Your task to perform on an android device: change timer sound Image 0: 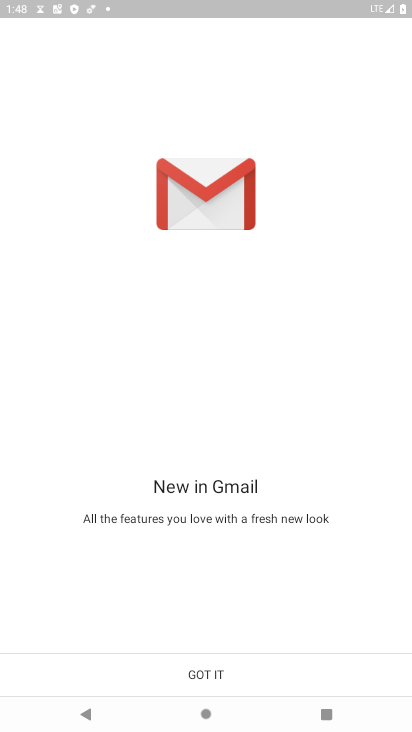
Step 0: press home button
Your task to perform on an android device: change timer sound Image 1: 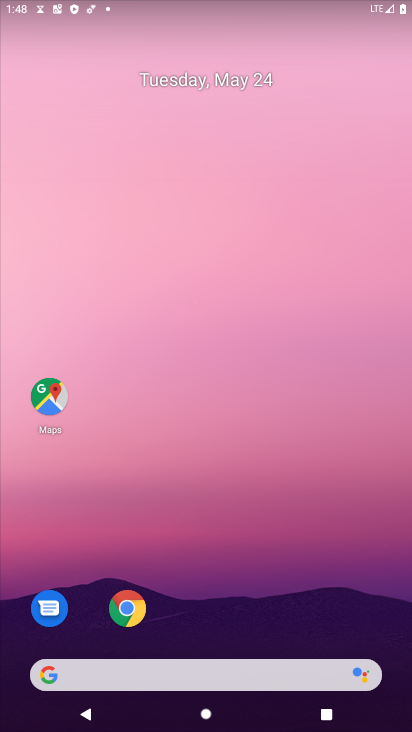
Step 1: drag from (212, 638) to (150, 219)
Your task to perform on an android device: change timer sound Image 2: 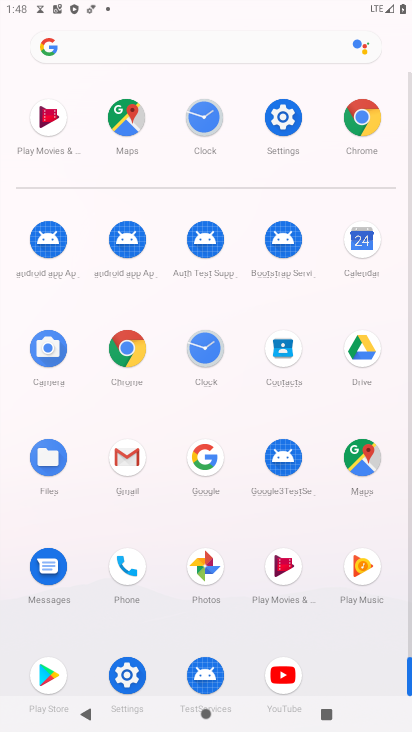
Step 2: click (216, 127)
Your task to perform on an android device: change timer sound Image 3: 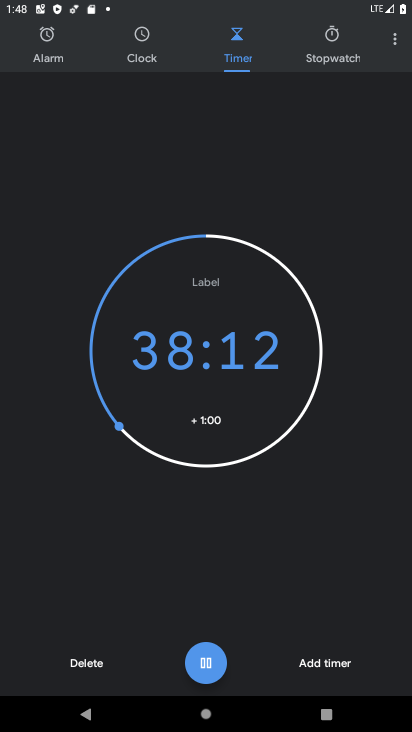
Step 3: click (399, 47)
Your task to perform on an android device: change timer sound Image 4: 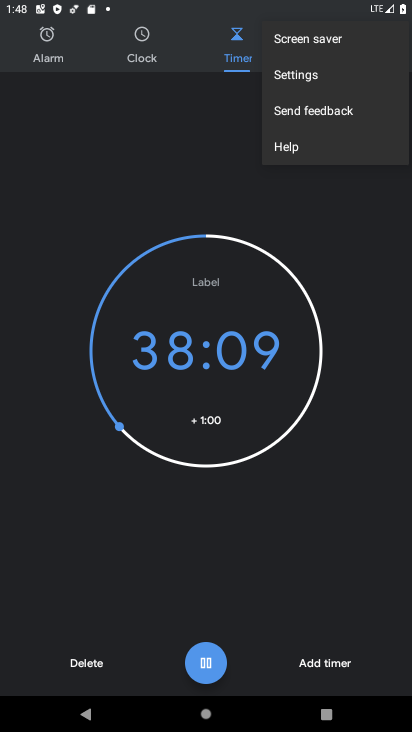
Step 4: click (367, 71)
Your task to perform on an android device: change timer sound Image 5: 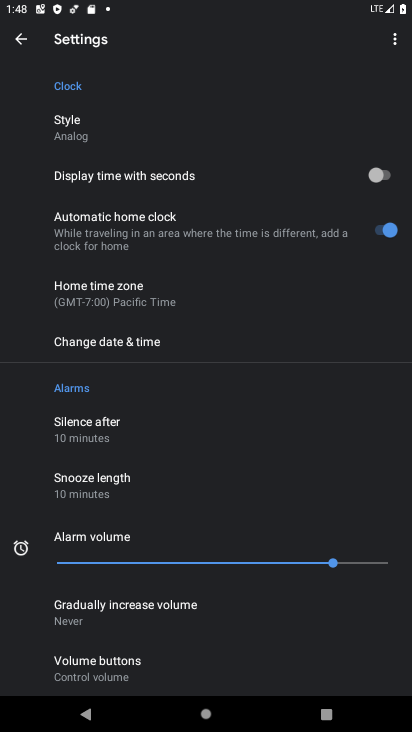
Step 5: drag from (209, 650) to (190, 192)
Your task to perform on an android device: change timer sound Image 6: 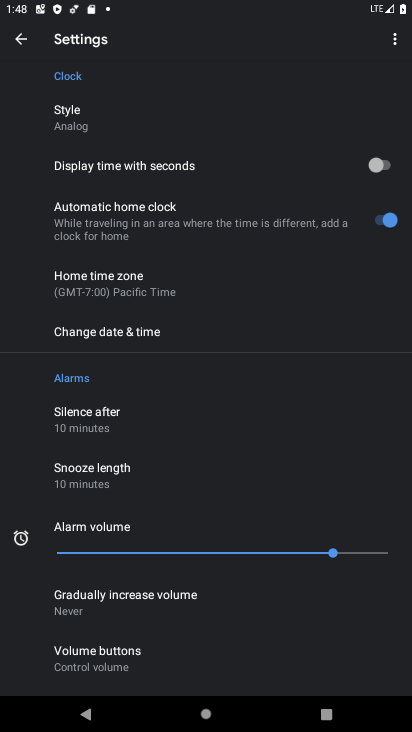
Step 6: drag from (205, 635) to (185, 369)
Your task to perform on an android device: change timer sound Image 7: 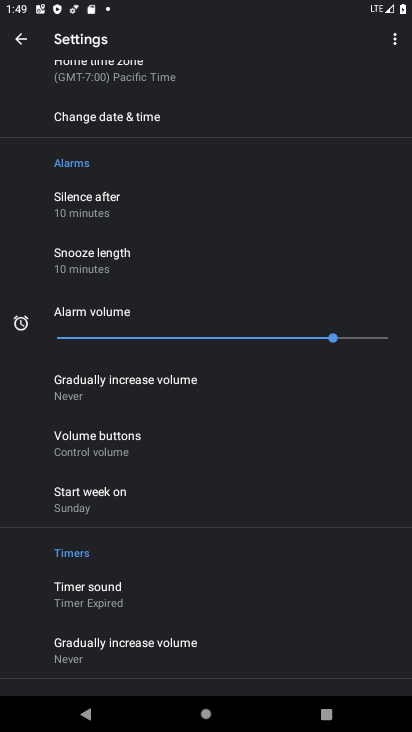
Step 7: click (177, 605)
Your task to perform on an android device: change timer sound Image 8: 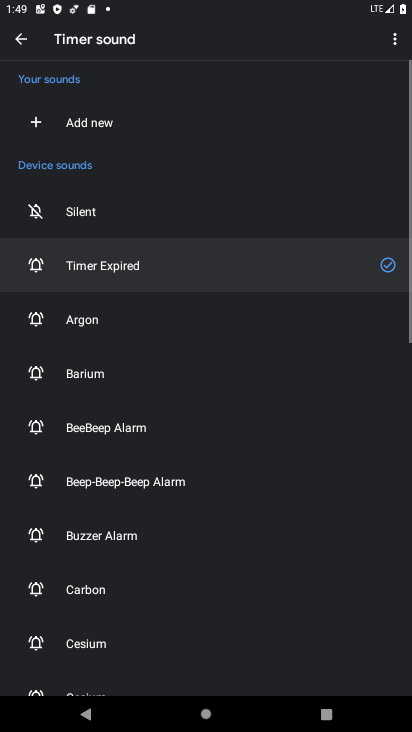
Step 8: click (177, 605)
Your task to perform on an android device: change timer sound Image 9: 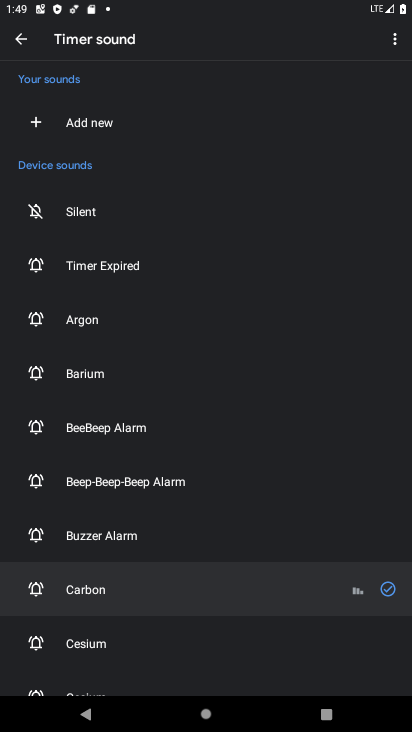
Step 9: task complete